Your task to perform on an android device: turn on notifications settings in the gmail app Image 0: 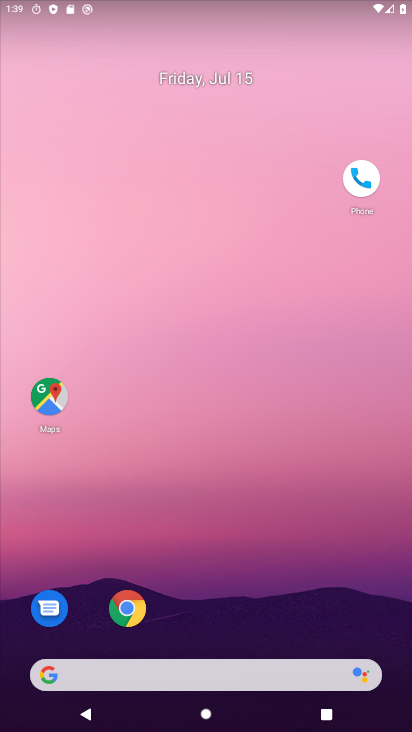
Step 0: drag from (211, 555) to (264, 210)
Your task to perform on an android device: turn on notifications settings in the gmail app Image 1: 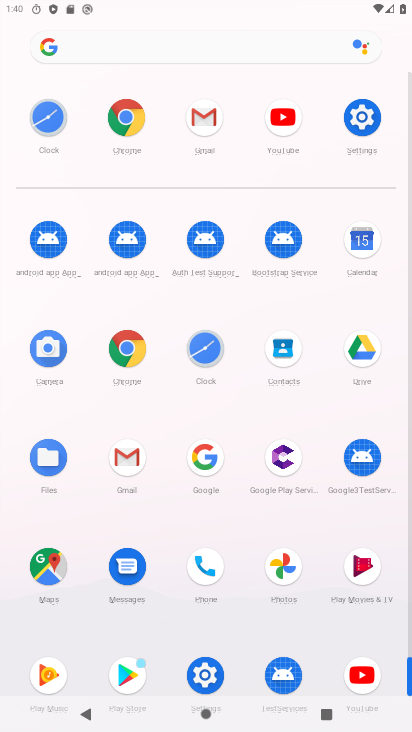
Step 1: click (128, 453)
Your task to perform on an android device: turn on notifications settings in the gmail app Image 2: 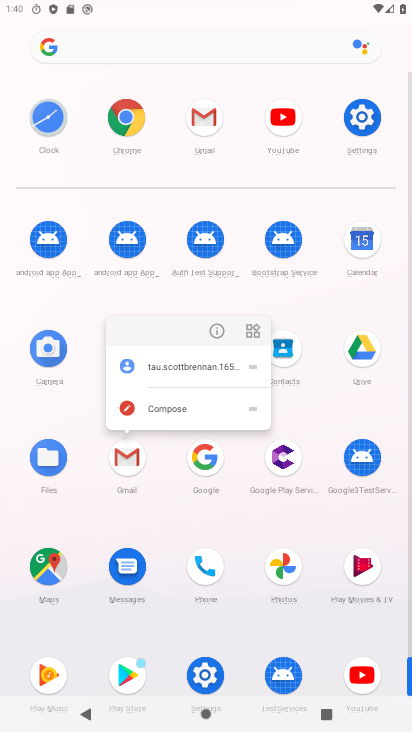
Step 2: click (215, 326)
Your task to perform on an android device: turn on notifications settings in the gmail app Image 3: 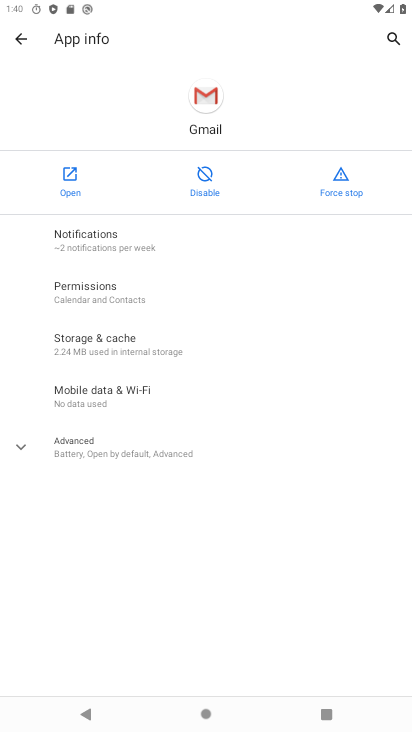
Step 3: click (65, 180)
Your task to perform on an android device: turn on notifications settings in the gmail app Image 4: 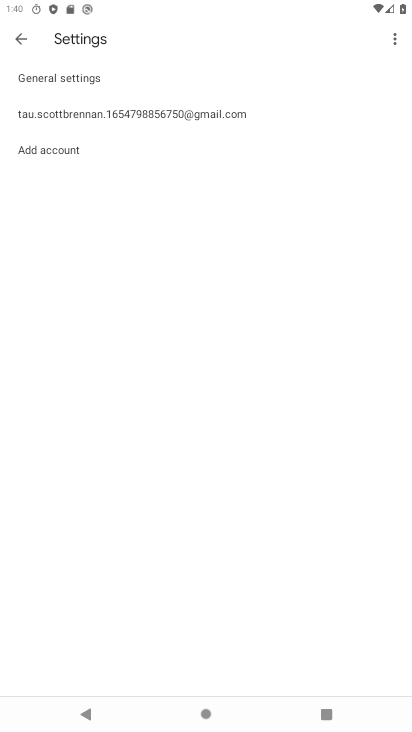
Step 4: click (136, 113)
Your task to perform on an android device: turn on notifications settings in the gmail app Image 5: 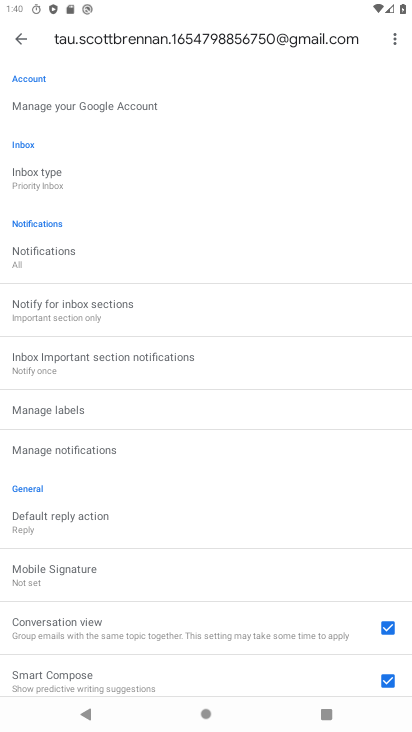
Step 5: drag from (153, 485) to (231, 125)
Your task to perform on an android device: turn on notifications settings in the gmail app Image 6: 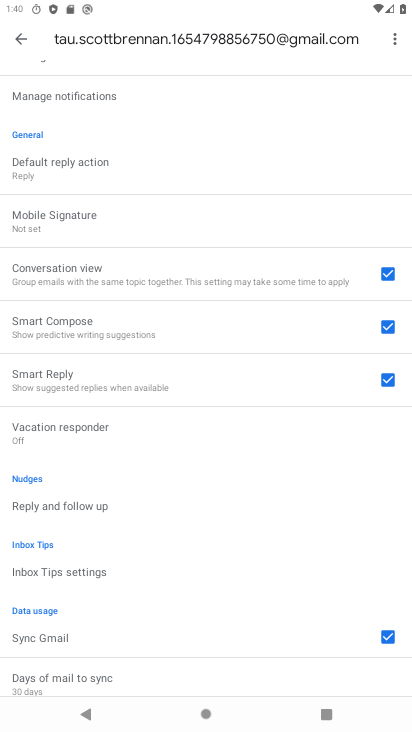
Step 6: drag from (164, 520) to (242, 199)
Your task to perform on an android device: turn on notifications settings in the gmail app Image 7: 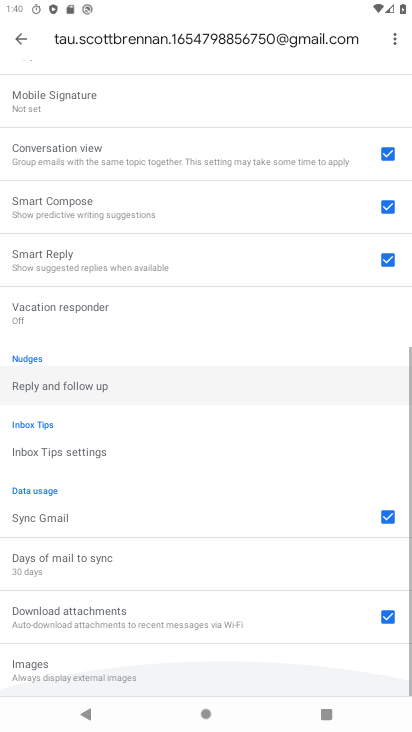
Step 7: drag from (260, 123) to (283, 698)
Your task to perform on an android device: turn on notifications settings in the gmail app Image 8: 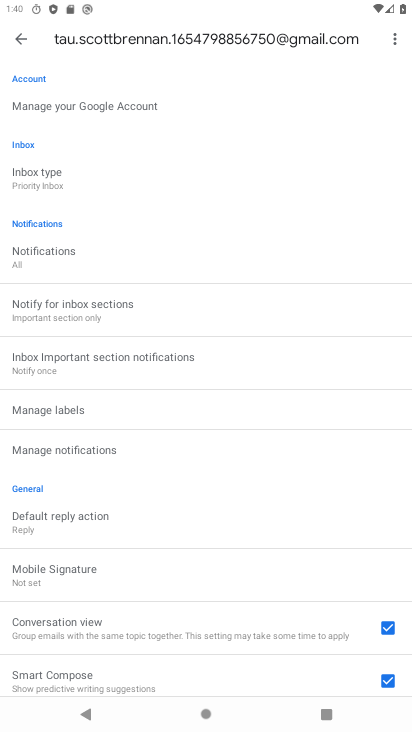
Step 8: drag from (189, 548) to (243, 300)
Your task to perform on an android device: turn on notifications settings in the gmail app Image 9: 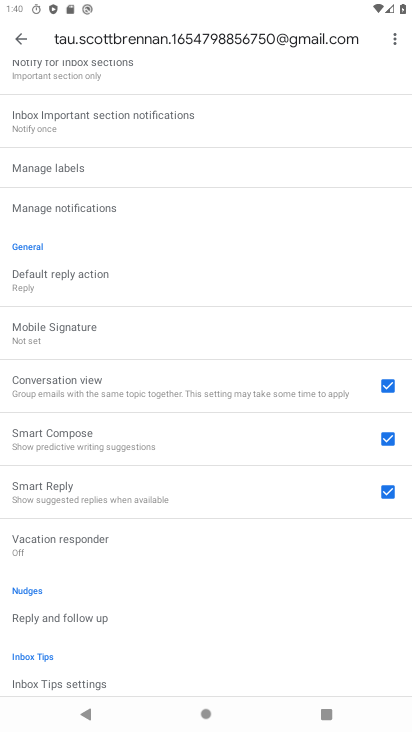
Step 9: drag from (254, 557) to (214, 711)
Your task to perform on an android device: turn on notifications settings in the gmail app Image 10: 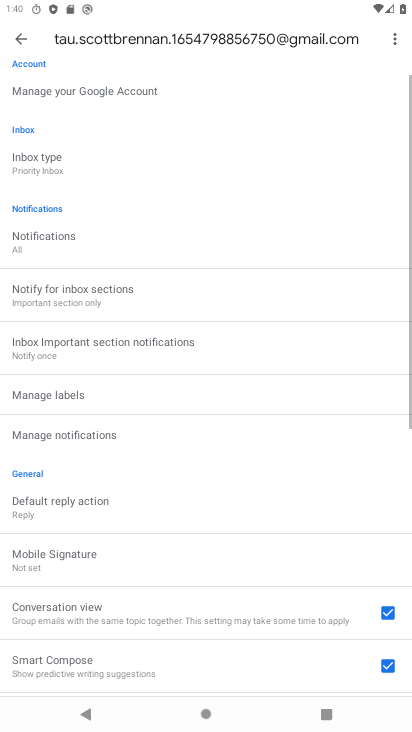
Step 10: drag from (211, 348) to (206, 611)
Your task to perform on an android device: turn on notifications settings in the gmail app Image 11: 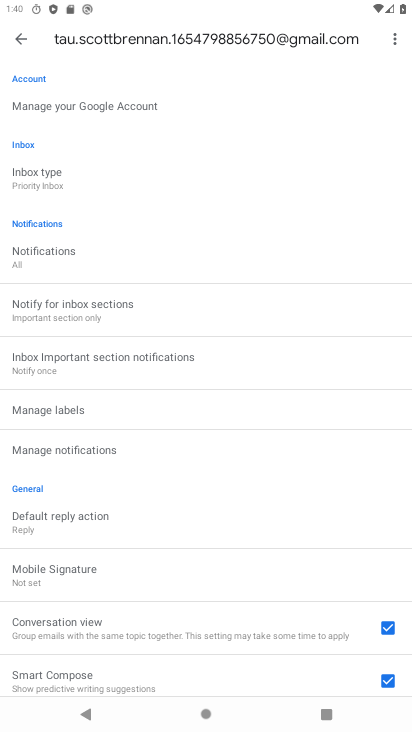
Step 11: click (76, 446)
Your task to perform on an android device: turn on notifications settings in the gmail app Image 12: 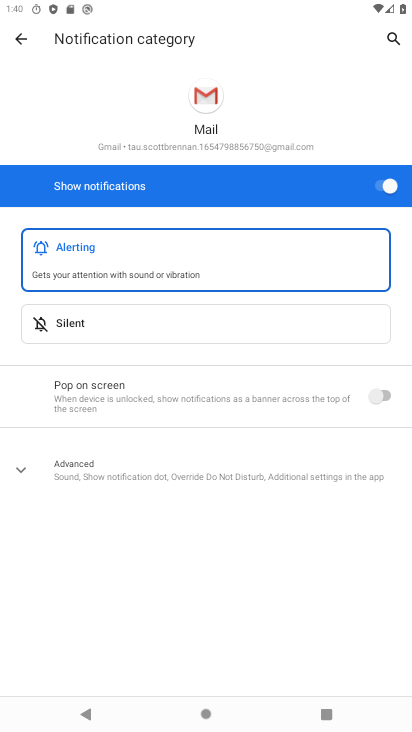
Step 12: task complete